Your task to perform on an android device: open app "Google Translate" (install if not already installed) Image 0: 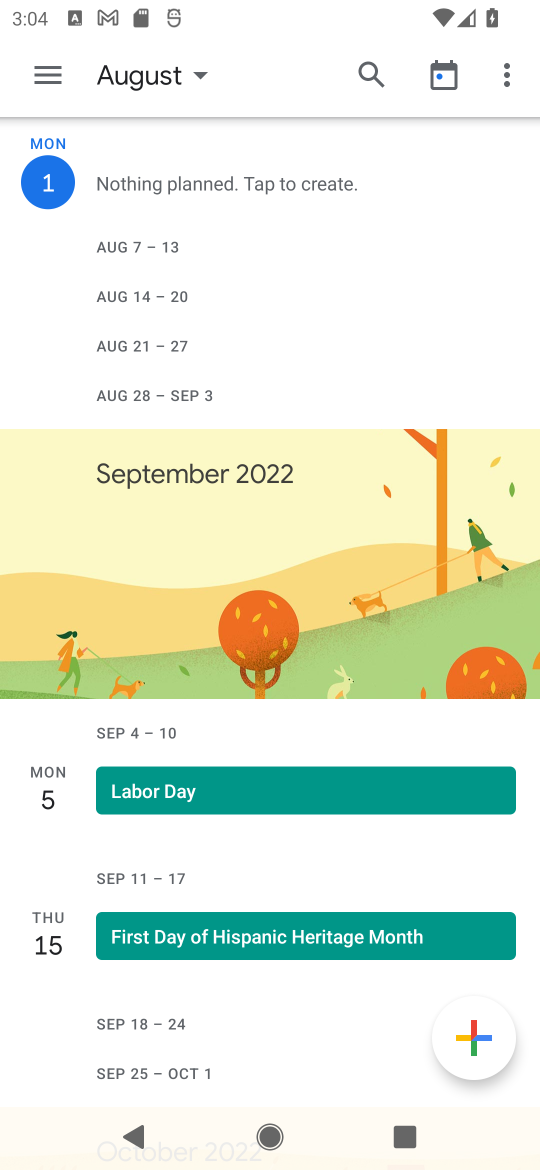
Step 0: press home button
Your task to perform on an android device: open app "Google Translate" (install if not already installed) Image 1: 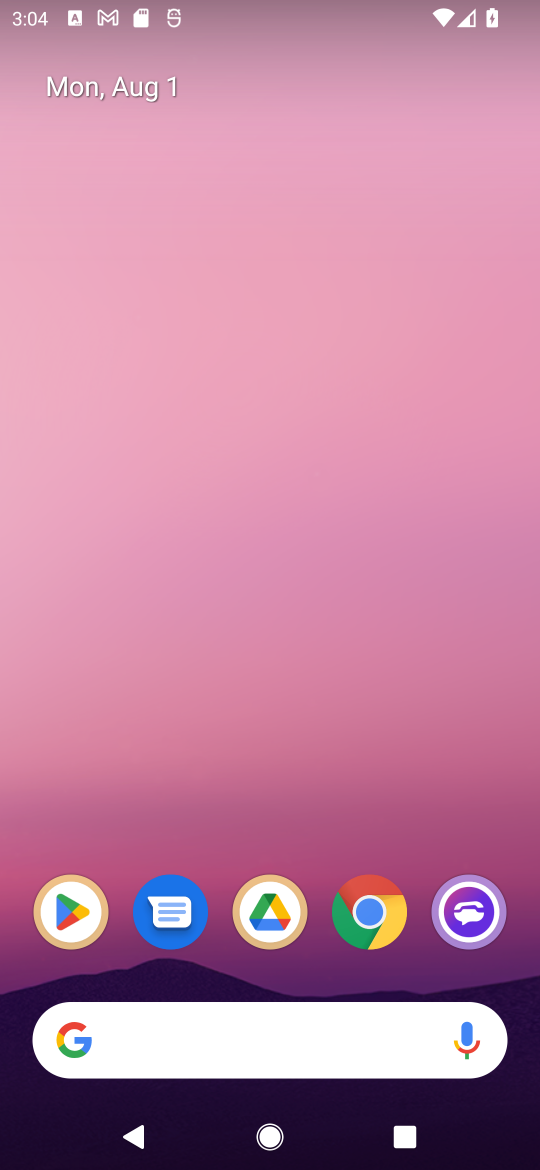
Step 1: click (61, 919)
Your task to perform on an android device: open app "Google Translate" (install if not already installed) Image 2: 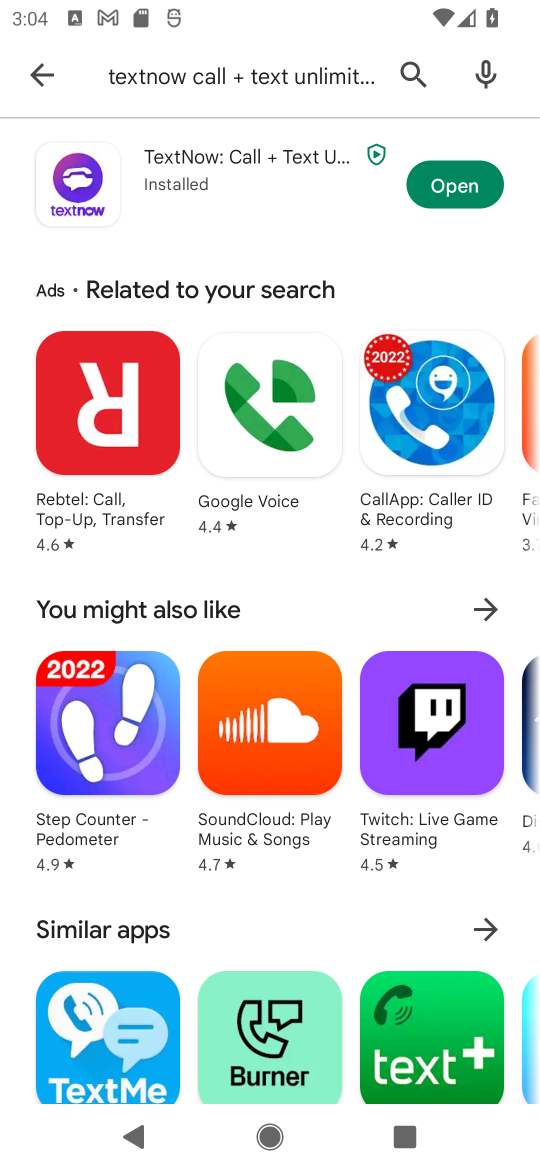
Step 2: click (423, 91)
Your task to perform on an android device: open app "Google Translate" (install if not already installed) Image 3: 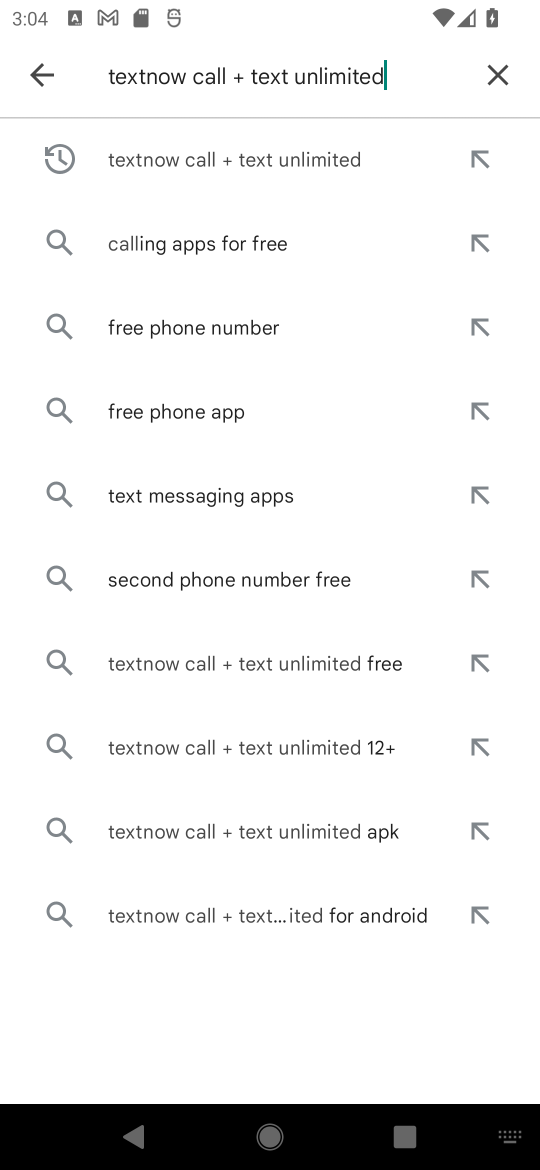
Step 3: click (500, 75)
Your task to perform on an android device: open app "Google Translate" (install if not already installed) Image 4: 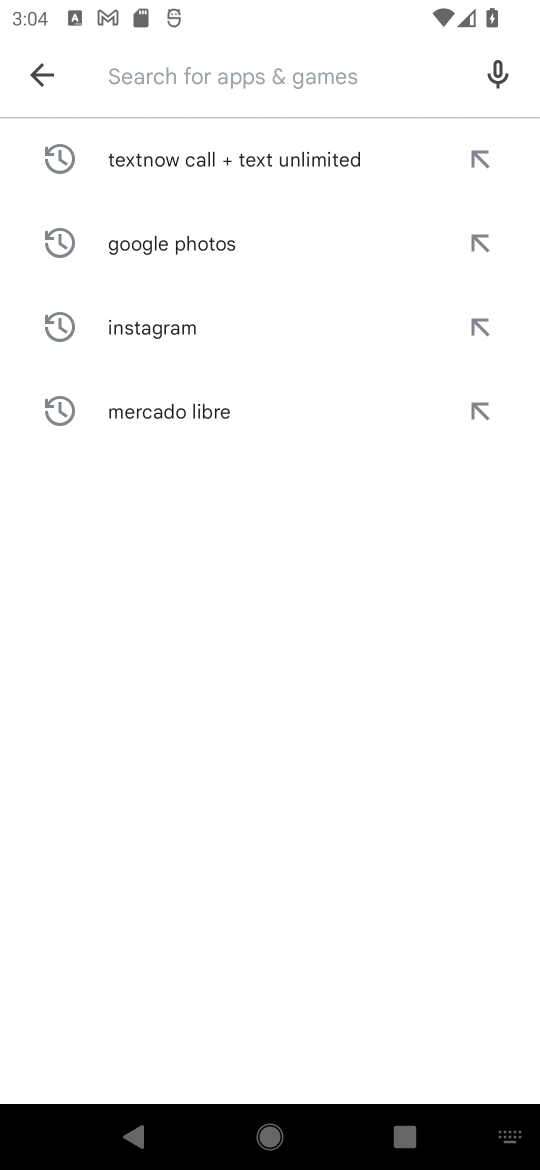
Step 4: type "Google Translate"
Your task to perform on an android device: open app "Google Translate" (install if not already installed) Image 5: 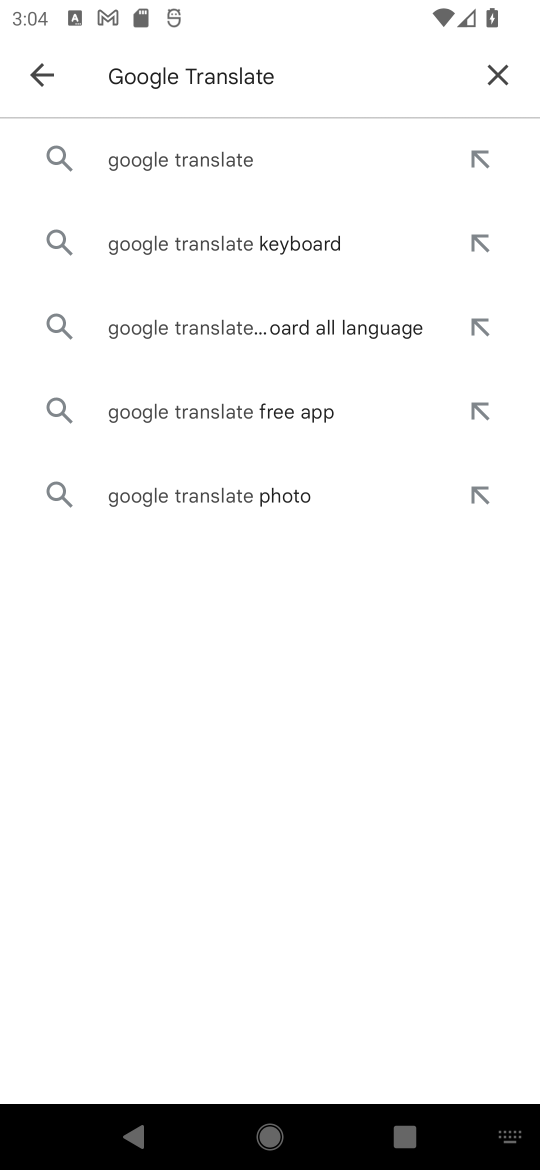
Step 5: click (153, 171)
Your task to perform on an android device: open app "Google Translate" (install if not already installed) Image 6: 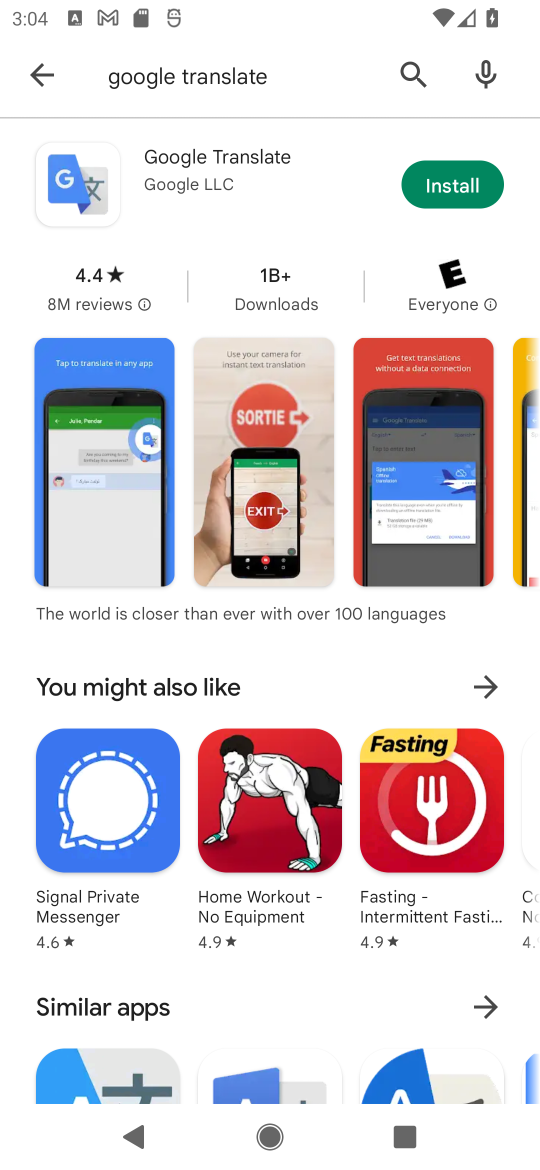
Step 6: click (470, 196)
Your task to perform on an android device: open app "Google Translate" (install if not already installed) Image 7: 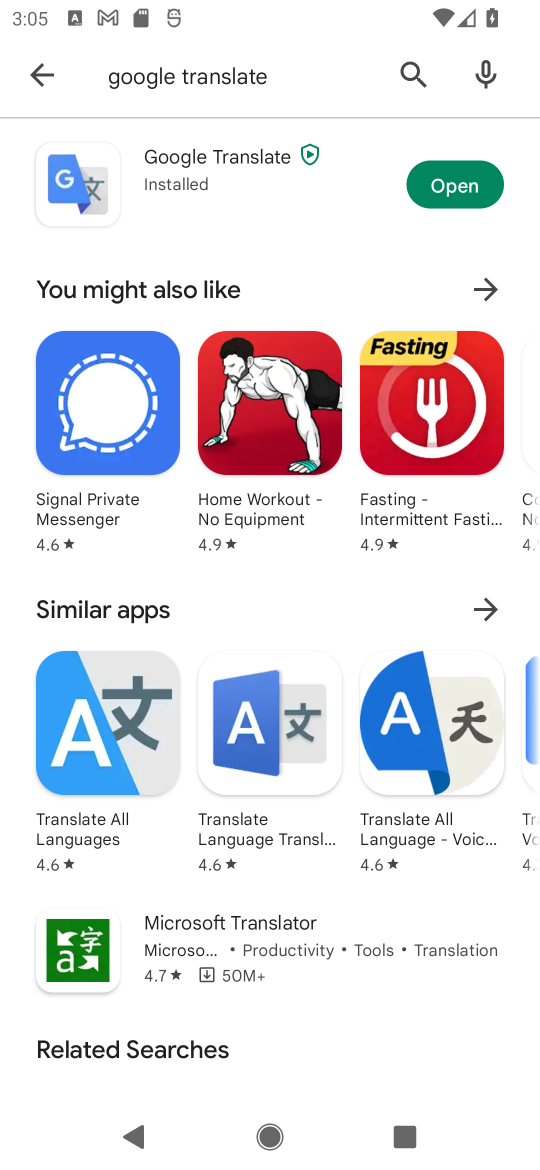
Step 7: click (460, 197)
Your task to perform on an android device: open app "Google Translate" (install if not already installed) Image 8: 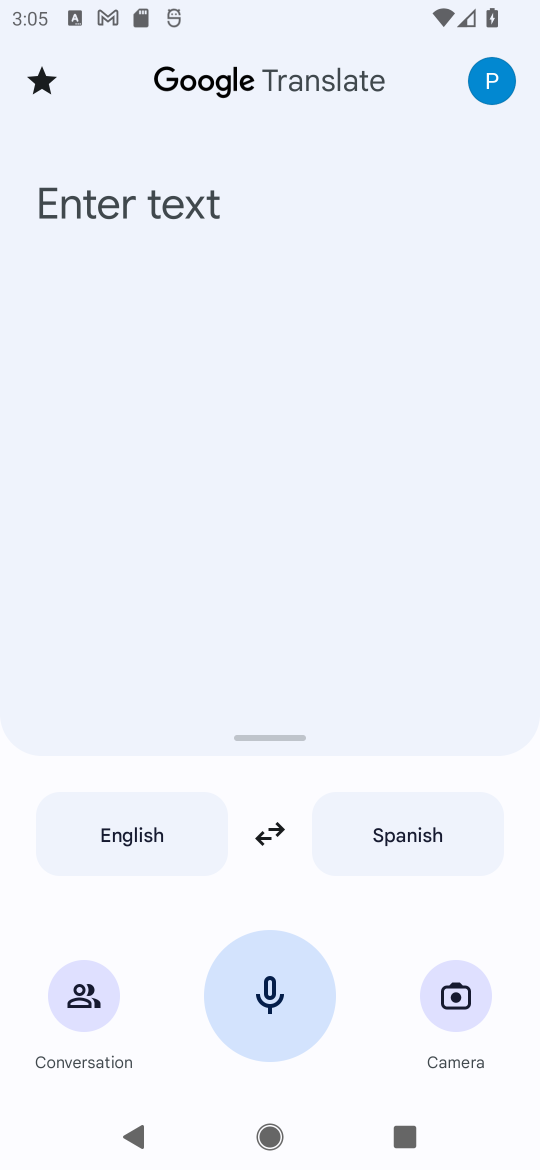
Step 8: task complete